Your task to perform on an android device: add a contact in the contacts app Image 0: 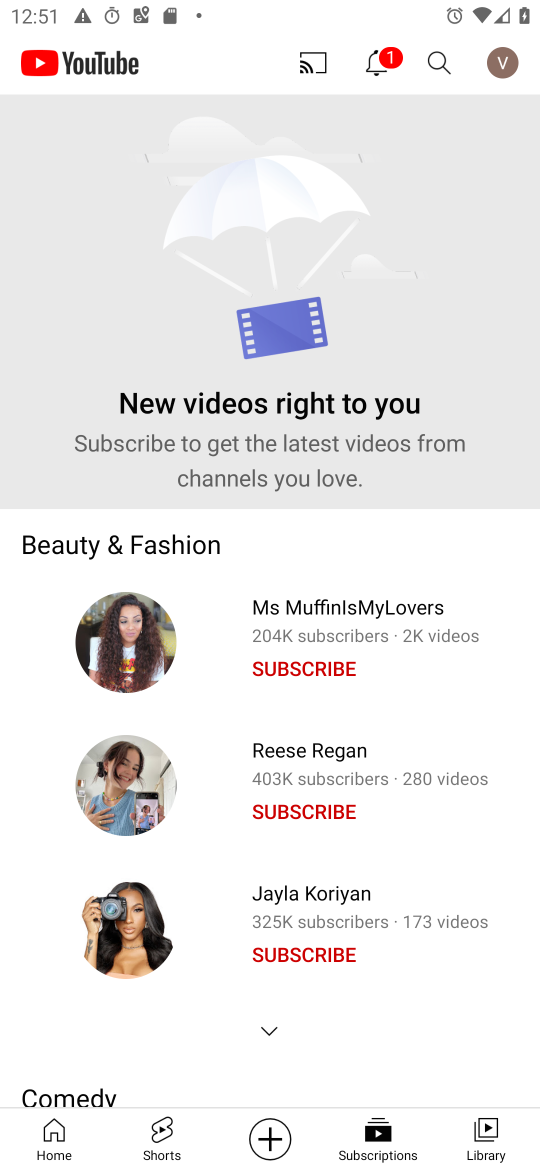
Step 0: press home button
Your task to perform on an android device: add a contact in the contacts app Image 1: 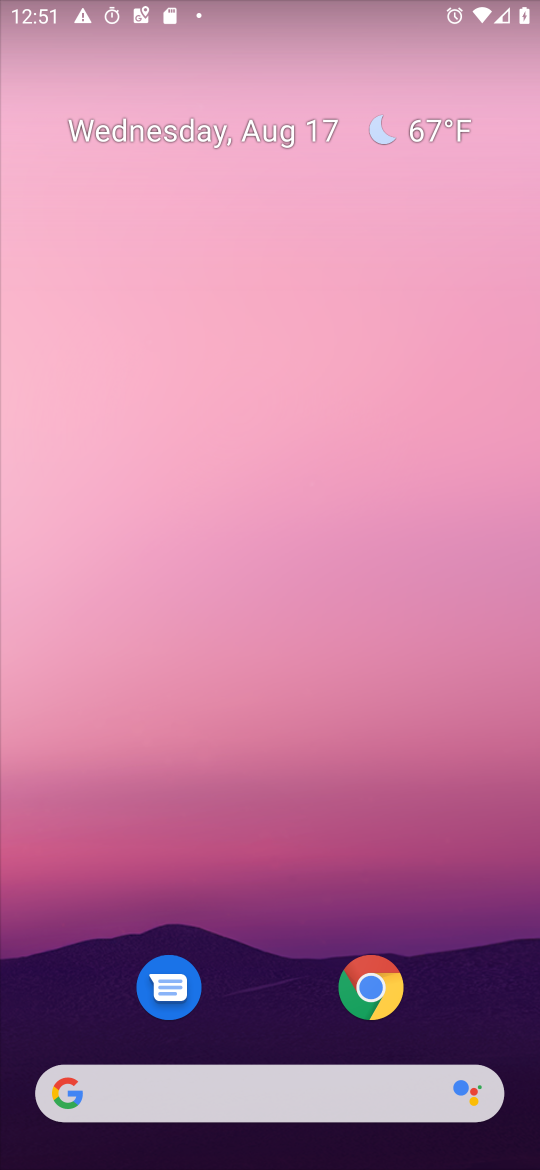
Step 1: drag from (23, 1110) to (262, 75)
Your task to perform on an android device: add a contact in the contacts app Image 2: 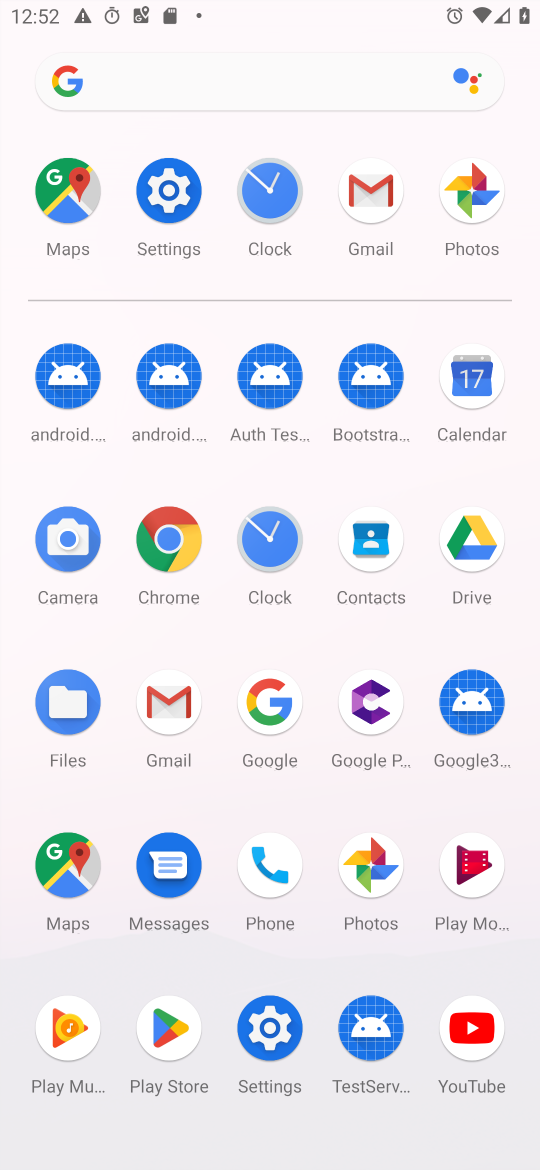
Step 2: click (252, 896)
Your task to perform on an android device: add a contact in the contacts app Image 3: 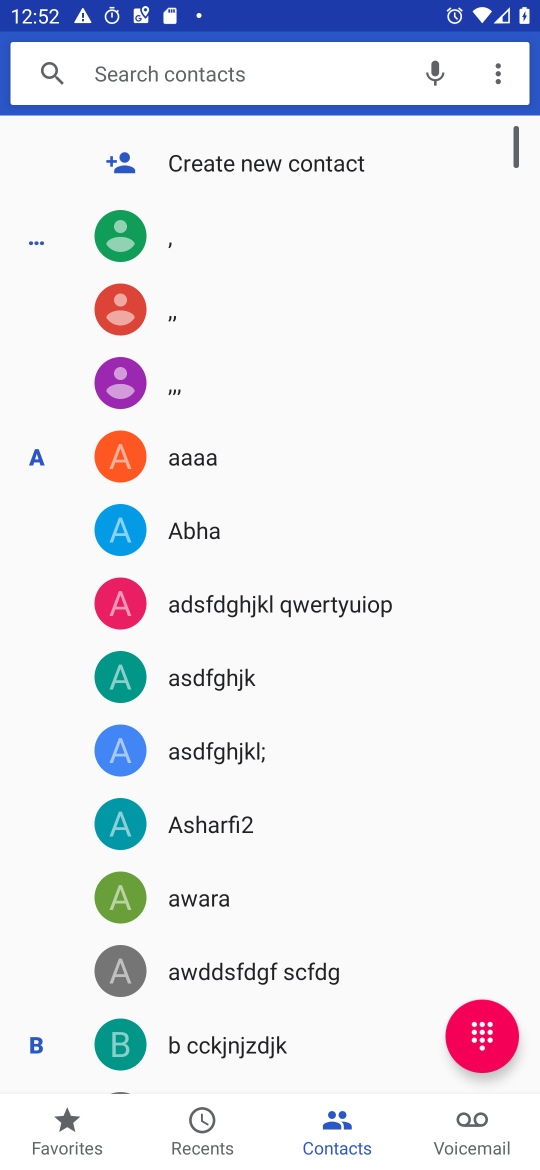
Step 3: click (310, 166)
Your task to perform on an android device: add a contact in the contacts app Image 4: 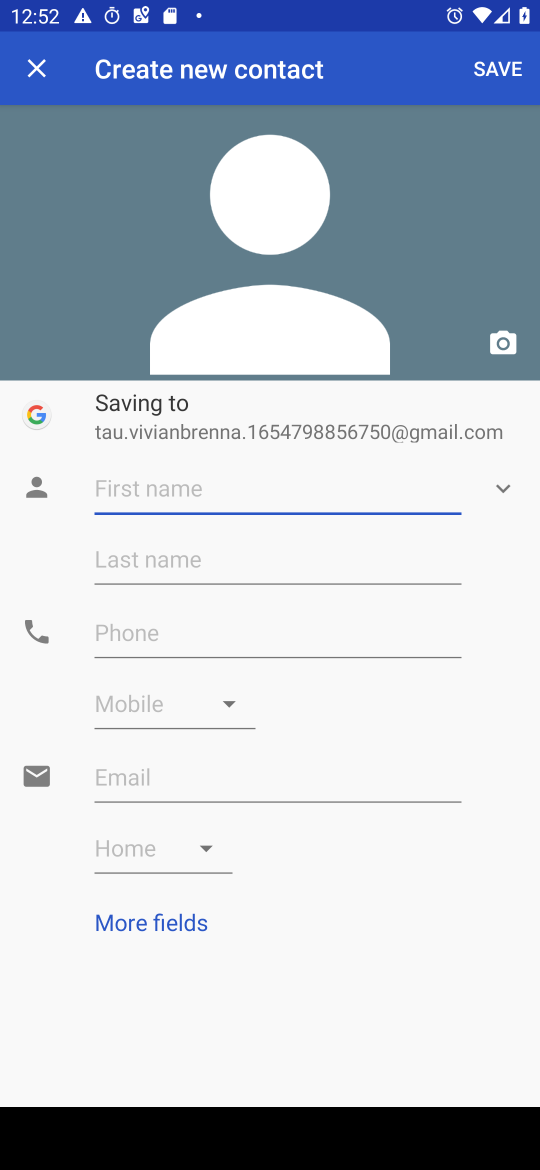
Step 4: type "seedgrjjh"
Your task to perform on an android device: add a contact in the contacts app Image 5: 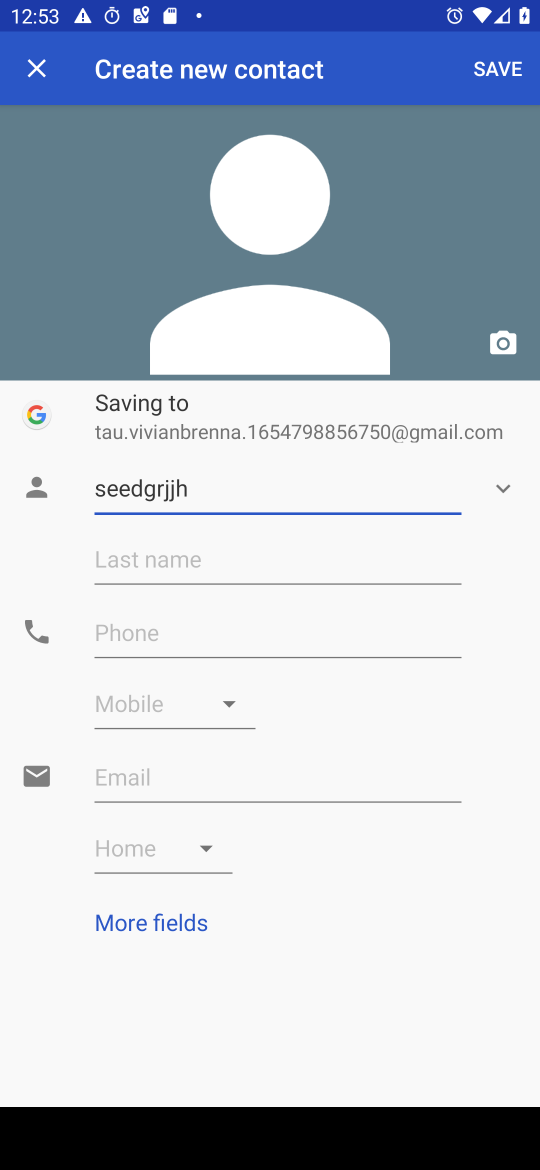
Step 5: click (483, 69)
Your task to perform on an android device: add a contact in the contacts app Image 6: 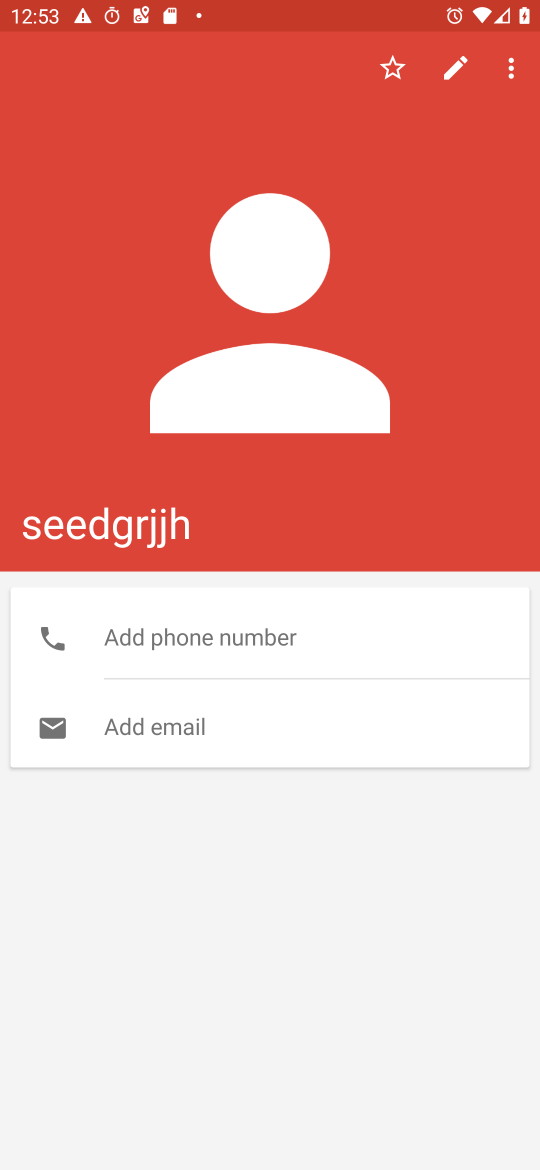
Step 6: task complete